Your task to perform on an android device: snooze an email in the gmail app Image 0: 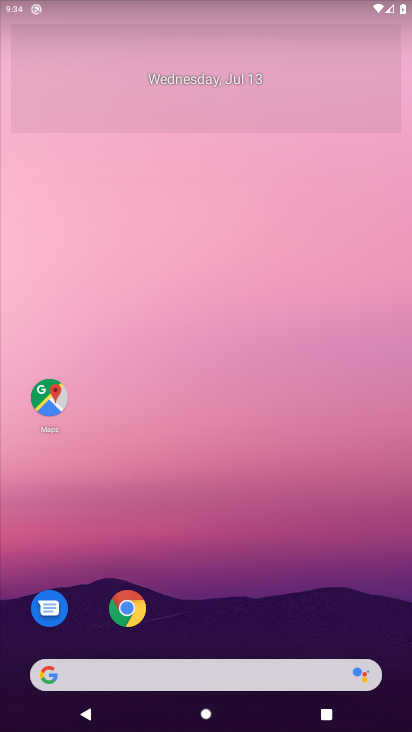
Step 0: drag from (40, 681) to (337, 33)
Your task to perform on an android device: snooze an email in the gmail app Image 1: 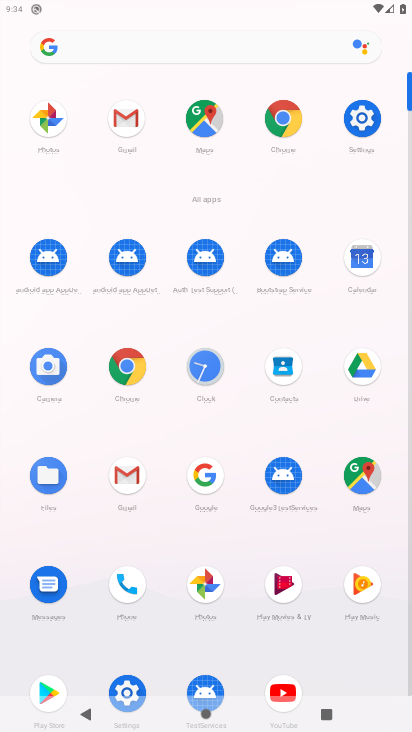
Step 1: click (124, 470)
Your task to perform on an android device: snooze an email in the gmail app Image 2: 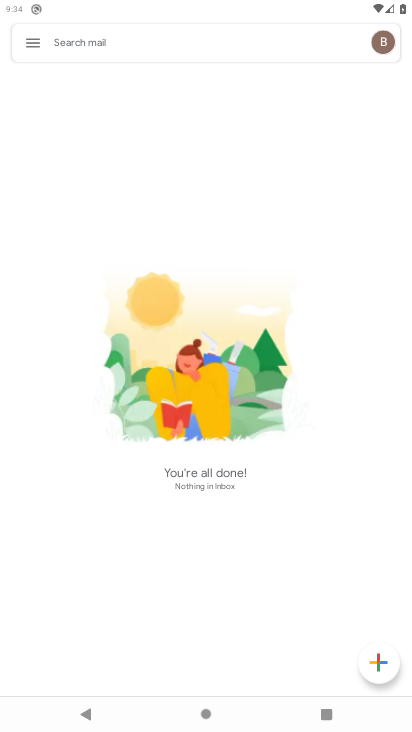
Step 2: click (26, 39)
Your task to perform on an android device: snooze an email in the gmail app Image 3: 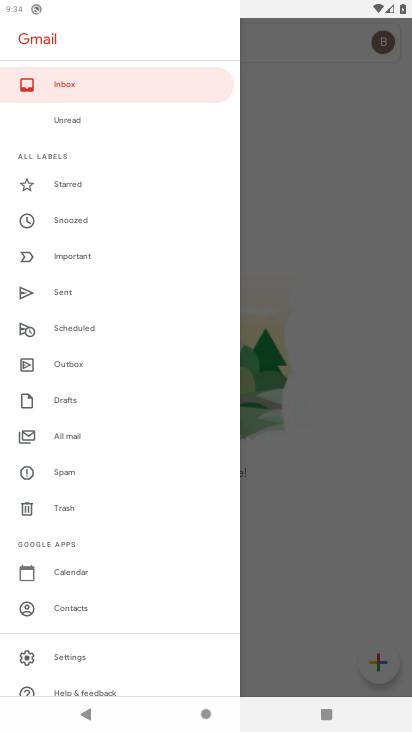
Step 3: click (71, 221)
Your task to perform on an android device: snooze an email in the gmail app Image 4: 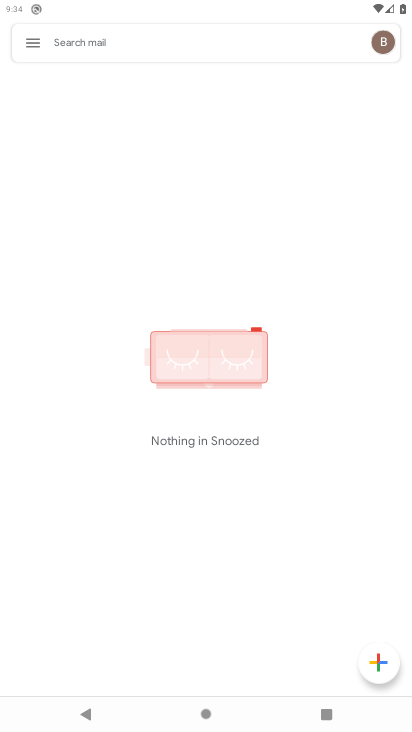
Step 4: task complete